Your task to perform on an android device: toggle priority inbox in the gmail app Image 0: 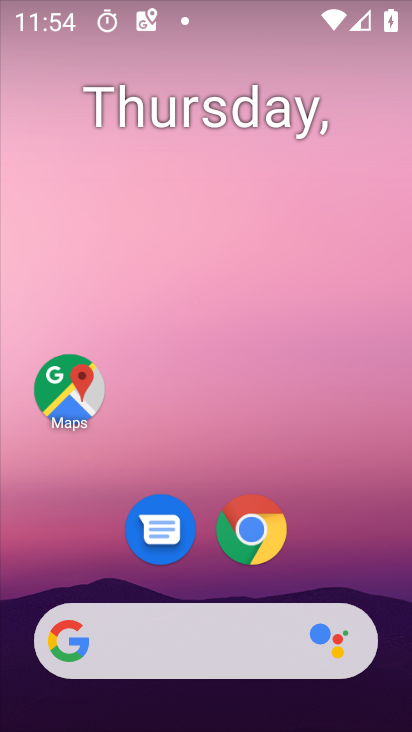
Step 0: drag from (211, 504) to (211, 168)
Your task to perform on an android device: toggle priority inbox in the gmail app Image 1: 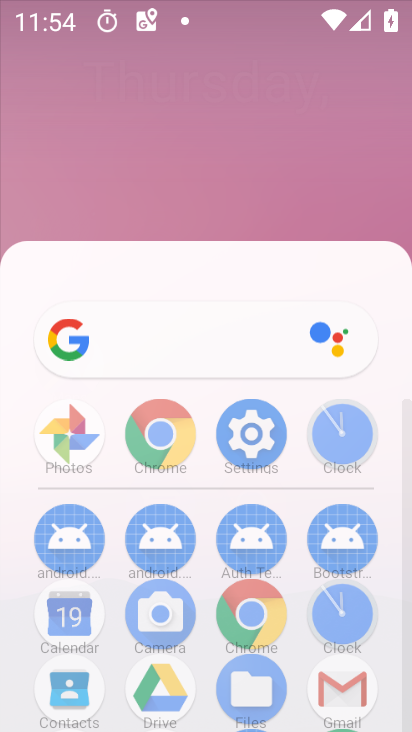
Step 1: click (211, 128)
Your task to perform on an android device: toggle priority inbox in the gmail app Image 2: 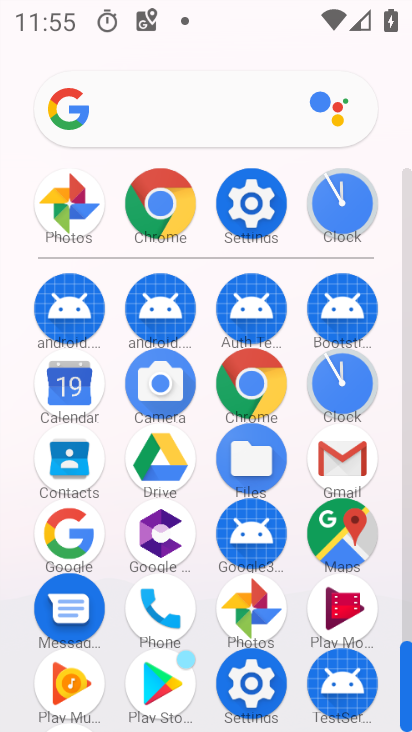
Step 2: click (334, 472)
Your task to perform on an android device: toggle priority inbox in the gmail app Image 3: 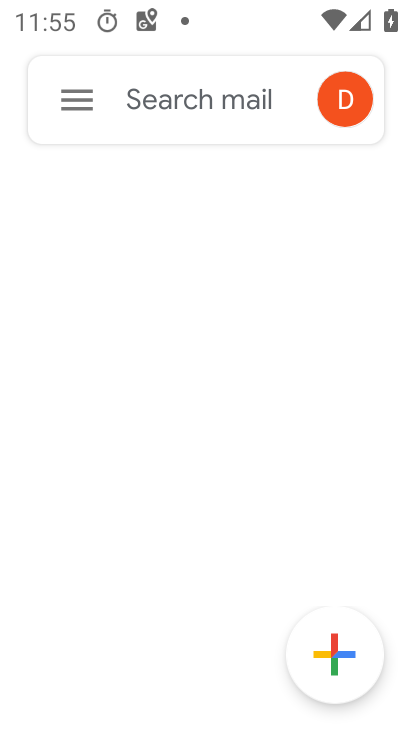
Step 3: click (76, 107)
Your task to perform on an android device: toggle priority inbox in the gmail app Image 4: 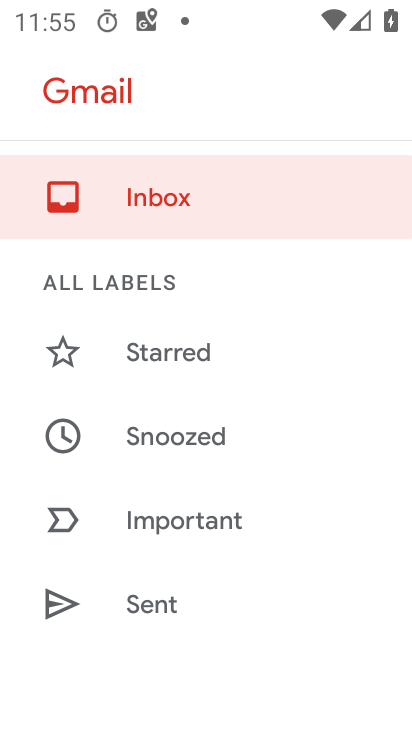
Step 4: drag from (148, 503) to (174, 114)
Your task to perform on an android device: toggle priority inbox in the gmail app Image 5: 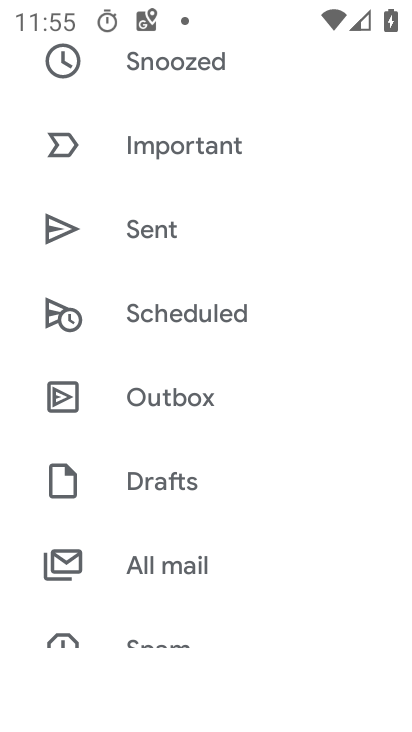
Step 5: drag from (164, 312) to (164, 158)
Your task to perform on an android device: toggle priority inbox in the gmail app Image 6: 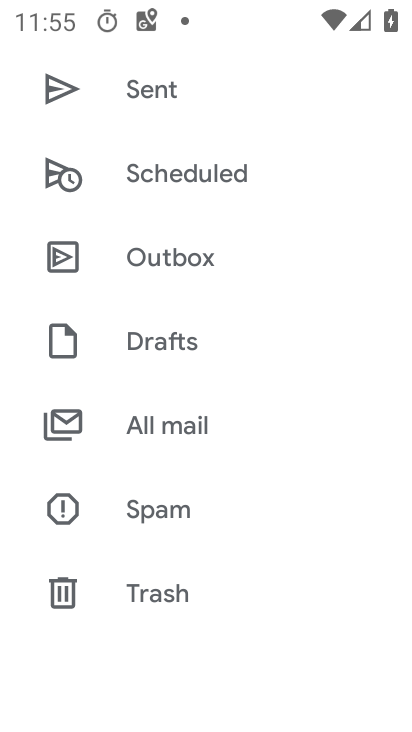
Step 6: drag from (169, 506) to (128, 144)
Your task to perform on an android device: toggle priority inbox in the gmail app Image 7: 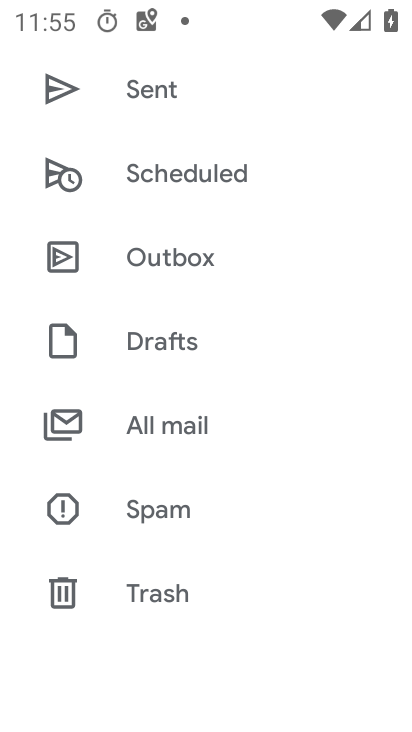
Step 7: drag from (112, 531) to (136, 210)
Your task to perform on an android device: toggle priority inbox in the gmail app Image 8: 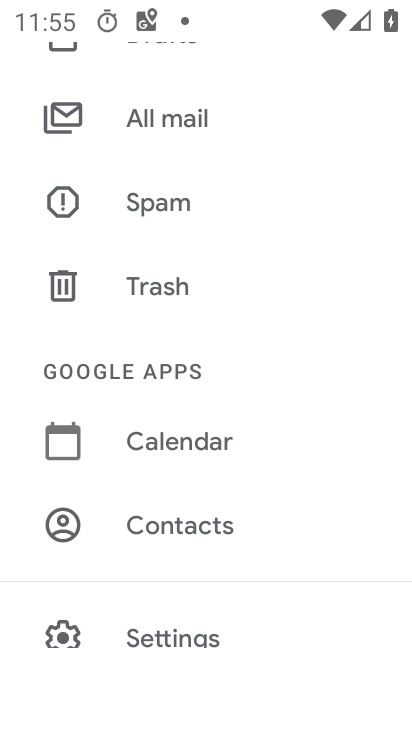
Step 8: click (129, 621)
Your task to perform on an android device: toggle priority inbox in the gmail app Image 9: 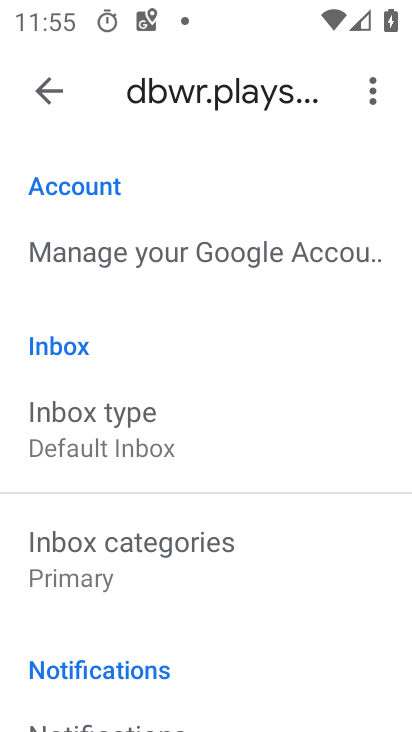
Step 9: click (133, 427)
Your task to perform on an android device: toggle priority inbox in the gmail app Image 10: 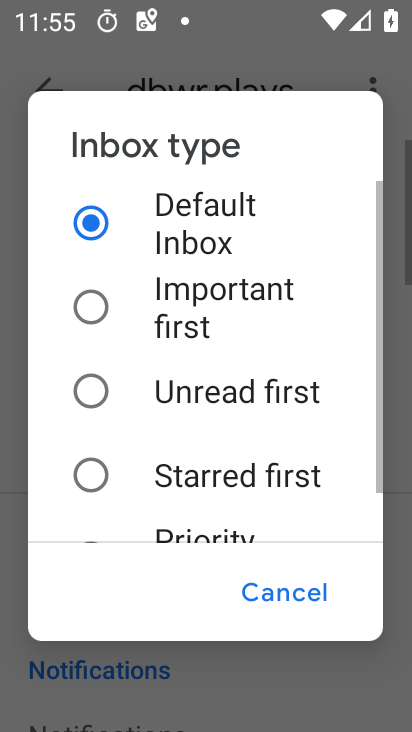
Step 10: drag from (138, 463) to (148, 189)
Your task to perform on an android device: toggle priority inbox in the gmail app Image 11: 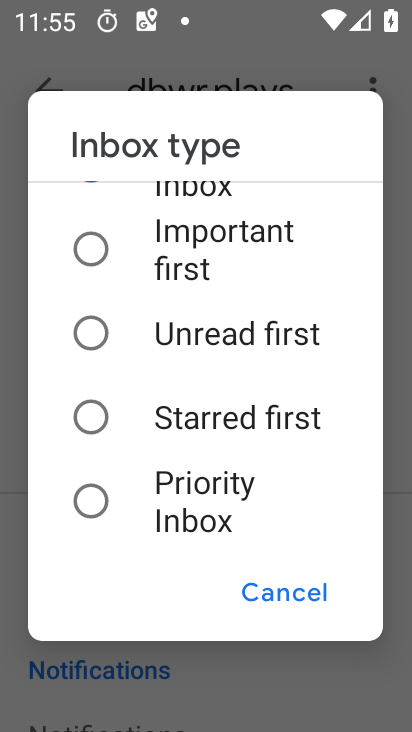
Step 11: click (144, 467)
Your task to perform on an android device: toggle priority inbox in the gmail app Image 12: 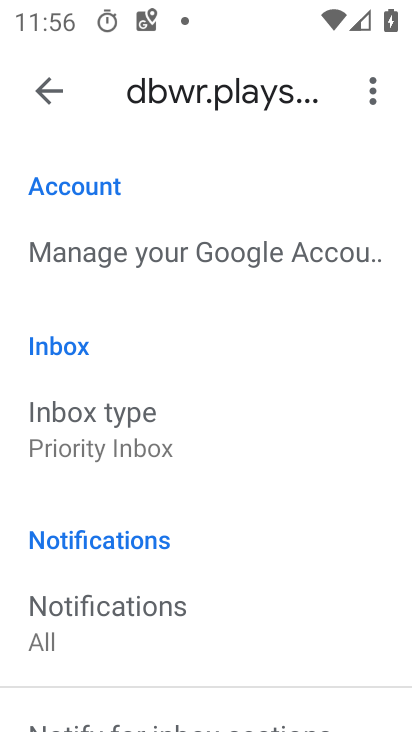
Step 12: task complete